Your task to perform on an android device: turn pop-ups on in chrome Image 0: 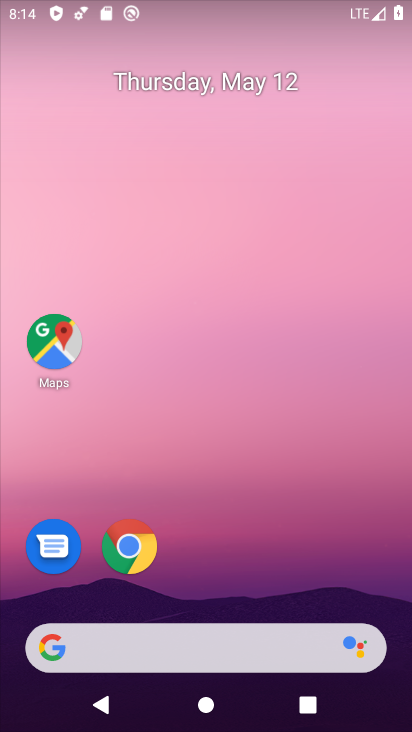
Step 0: click (143, 545)
Your task to perform on an android device: turn pop-ups on in chrome Image 1: 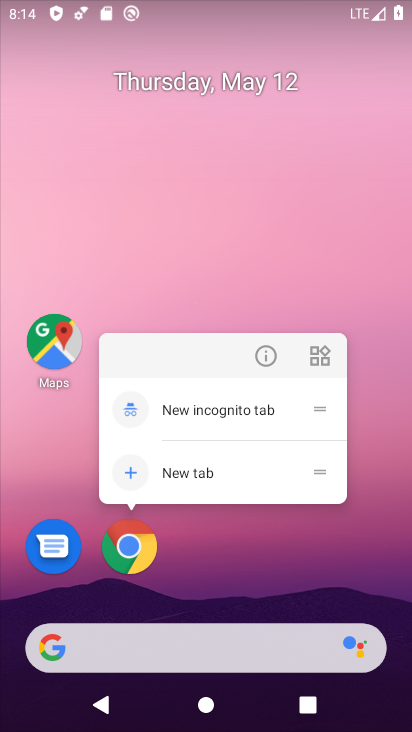
Step 1: click (133, 549)
Your task to perform on an android device: turn pop-ups on in chrome Image 2: 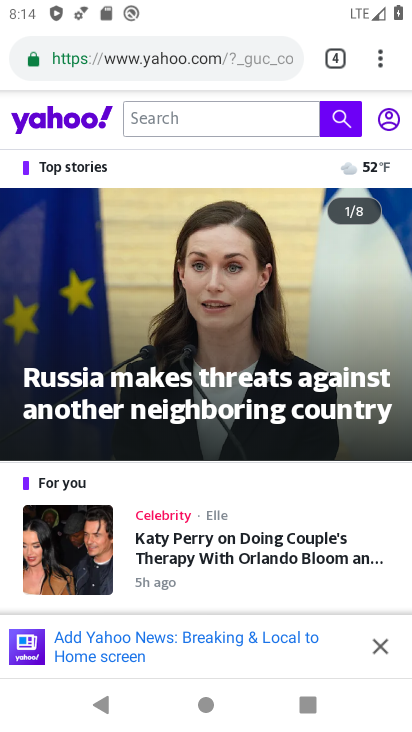
Step 2: click (377, 57)
Your task to perform on an android device: turn pop-ups on in chrome Image 3: 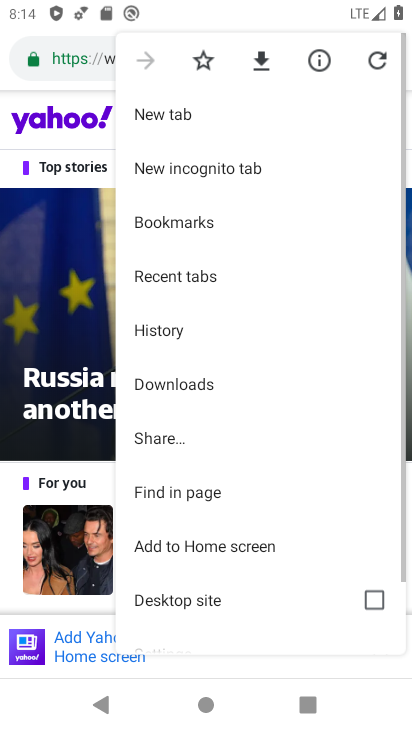
Step 3: drag from (190, 591) to (225, 132)
Your task to perform on an android device: turn pop-ups on in chrome Image 4: 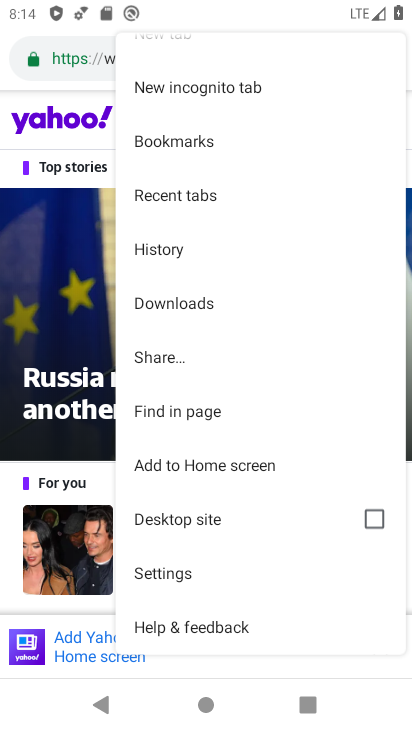
Step 4: click (154, 570)
Your task to perform on an android device: turn pop-ups on in chrome Image 5: 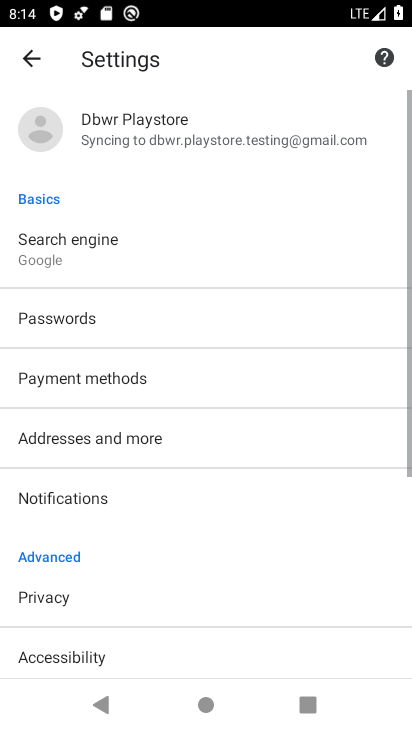
Step 5: drag from (95, 570) to (111, 88)
Your task to perform on an android device: turn pop-ups on in chrome Image 6: 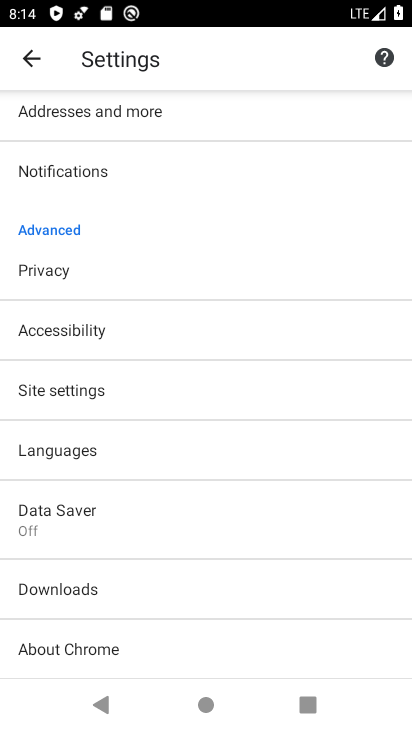
Step 6: click (90, 400)
Your task to perform on an android device: turn pop-ups on in chrome Image 7: 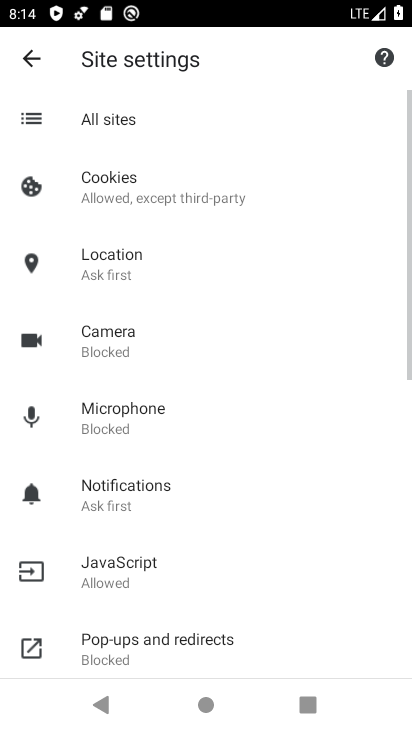
Step 7: click (131, 656)
Your task to perform on an android device: turn pop-ups on in chrome Image 8: 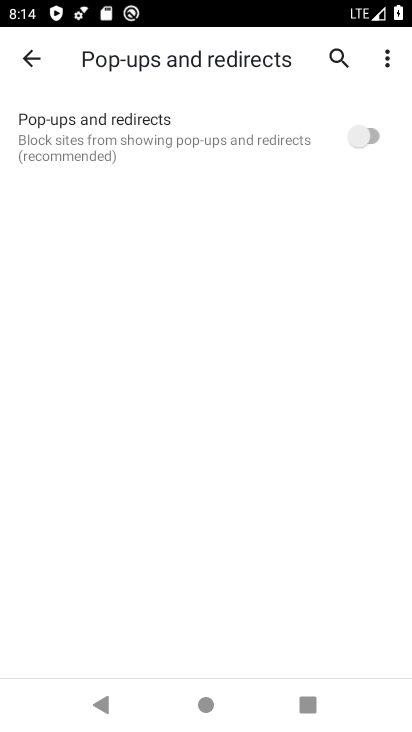
Step 8: click (359, 140)
Your task to perform on an android device: turn pop-ups on in chrome Image 9: 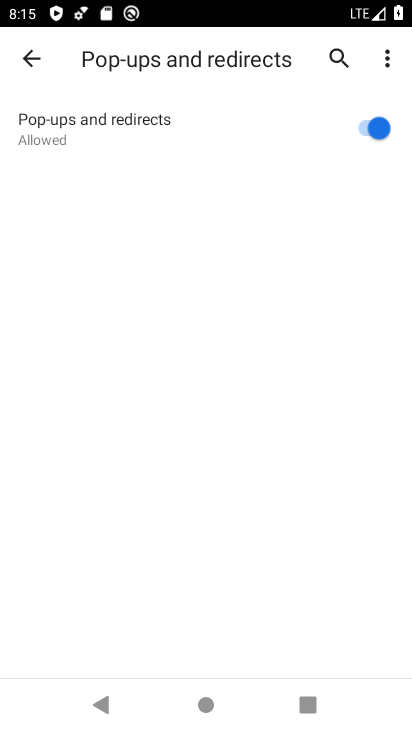
Step 9: task complete